Your task to perform on an android device: Go to Amazon Image 0: 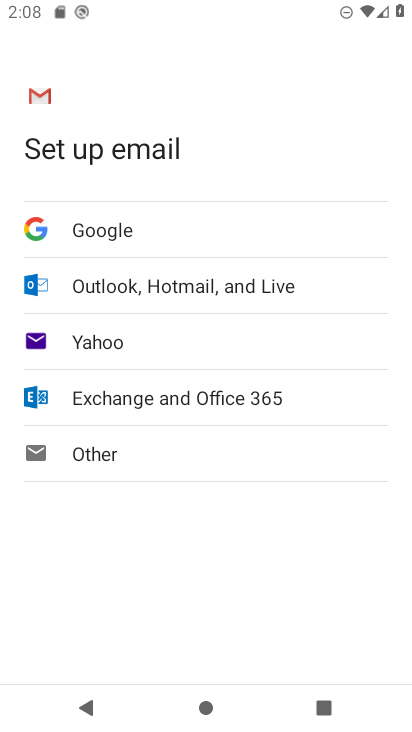
Step 0: press home button
Your task to perform on an android device: Go to Amazon Image 1: 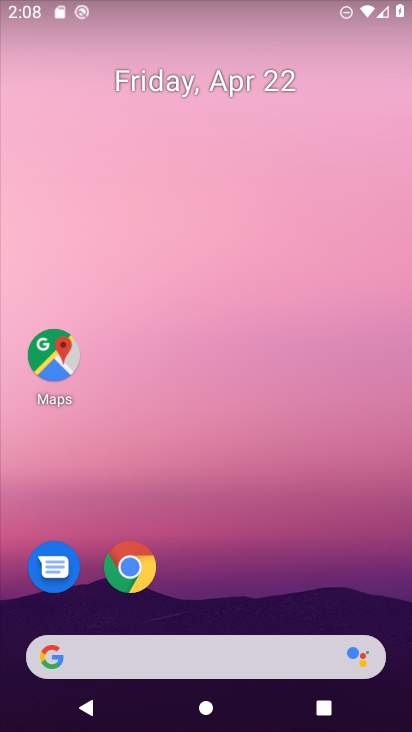
Step 1: drag from (265, 525) to (284, 92)
Your task to perform on an android device: Go to Amazon Image 2: 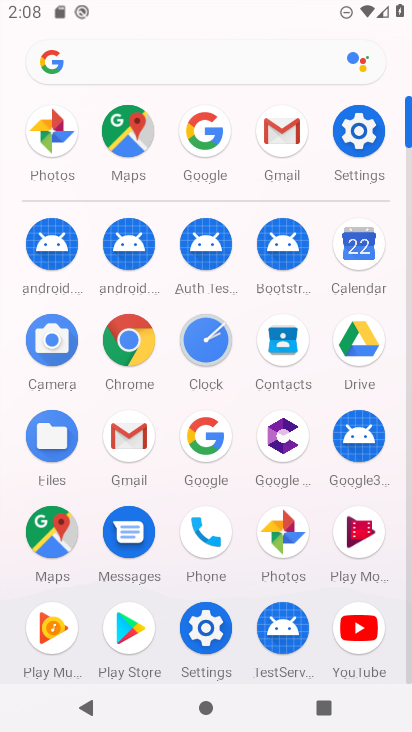
Step 2: click (137, 345)
Your task to perform on an android device: Go to Amazon Image 3: 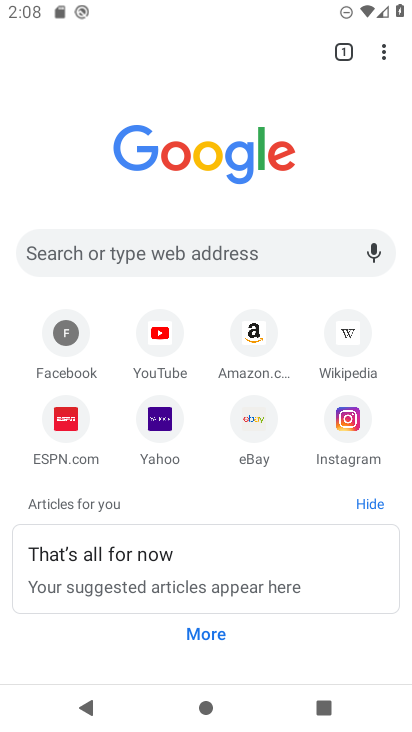
Step 3: click (256, 338)
Your task to perform on an android device: Go to Amazon Image 4: 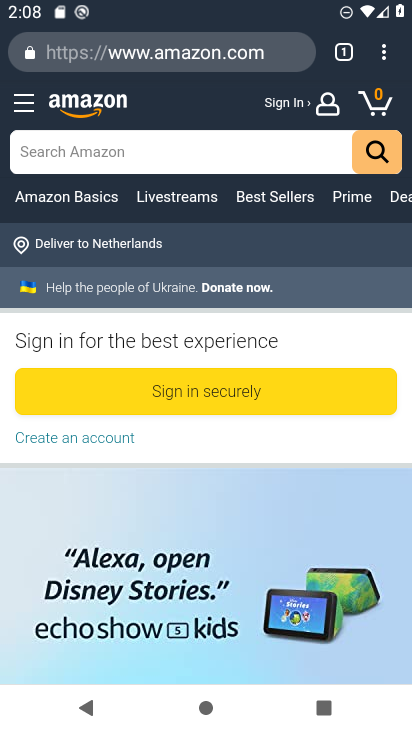
Step 4: task complete